Your task to perform on an android device: open app "Facebook Lite" (install if not already installed) Image 0: 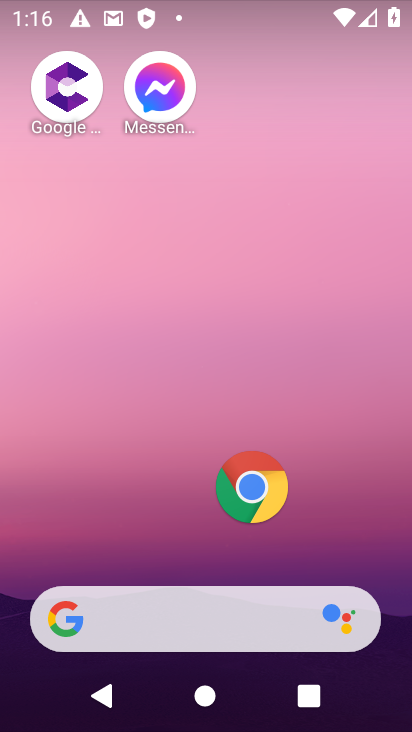
Step 0: drag from (194, 548) to (227, 204)
Your task to perform on an android device: open app "Facebook Lite" (install if not already installed) Image 1: 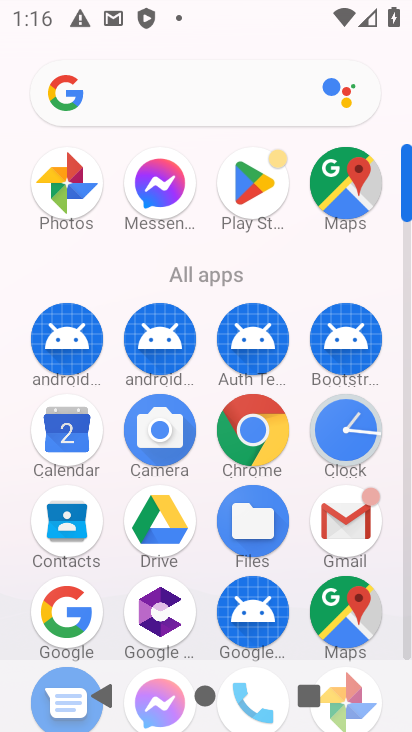
Step 1: click (245, 208)
Your task to perform on an android device: open app "Facebook Lite" (install if not already installed) Image 2: 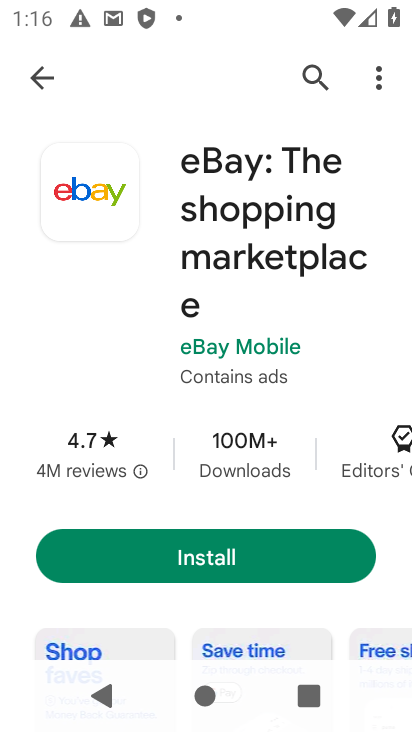
Step 2: click (309, 77)
Your task to perform on an android device: open app "Facebook Lite" (install if not already installed) Image 3: 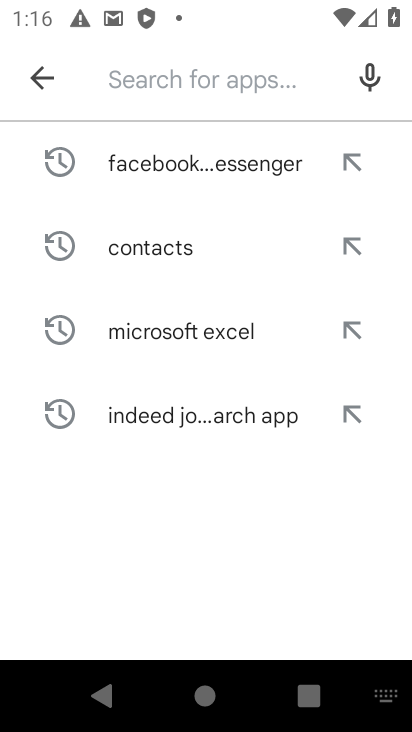
Step 3: type "Facebook Lite"
Your task to perform on an android device: open app "Facebook Lite" (install if not already installed) Image 4: 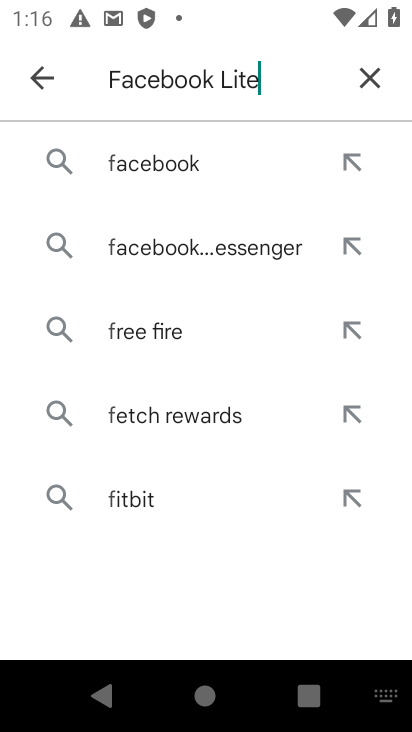
Step 4: type ""
Your task to perform on an android device: open app "Facebook Lite" (install if not already installed) Image 5: 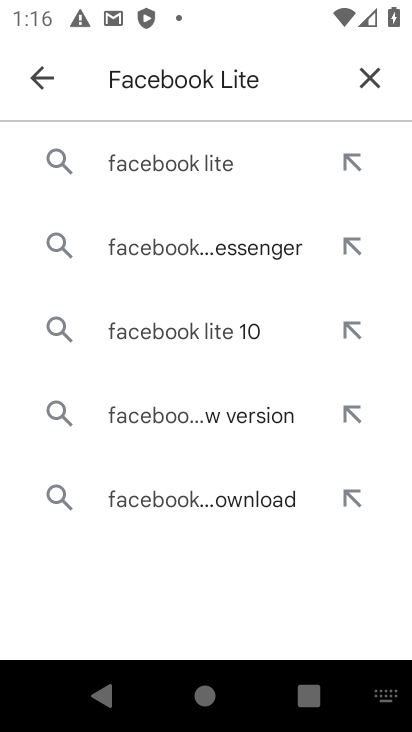
Step 5: click (213, 157)
Your task to perform on an android device: open app "Facebook Lite" (install if not already installed) Image 6: 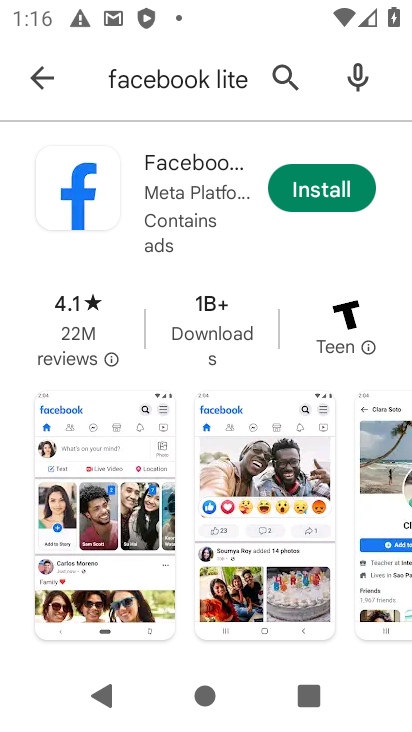
Step 6: click (345, 190)
Your task to perform on an android device: open app "Facebook Lite" (install if not already installed) Image 7: 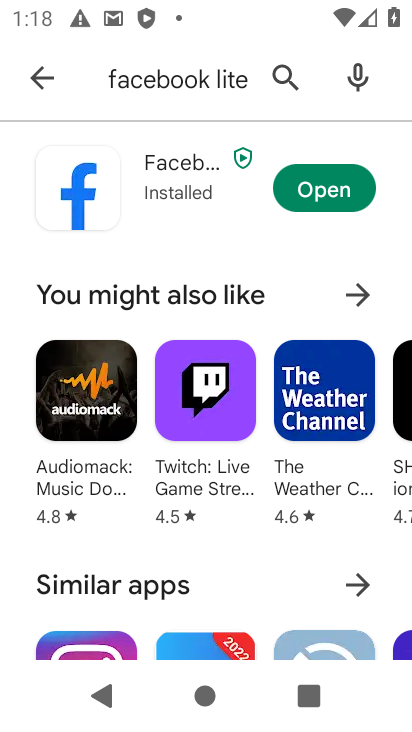
Step 7: click (315, 189)
Your task to perform on an android device: open app "Facebook Lite" (install if not already installed) Image 8: 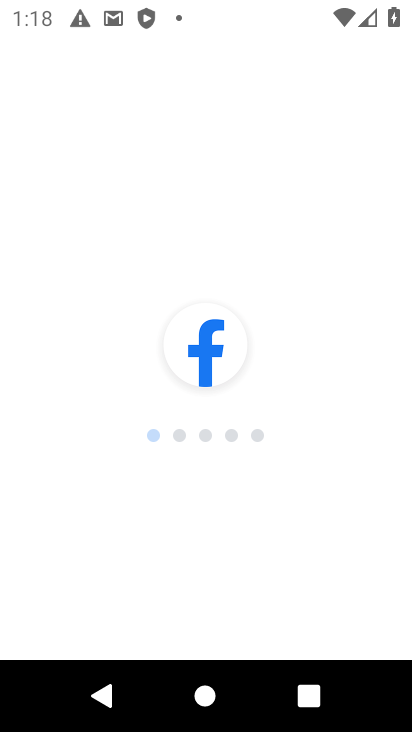
Step 8: task complete